Your task to perform on an android device: Go to calendar. Show me events next week Image 0: 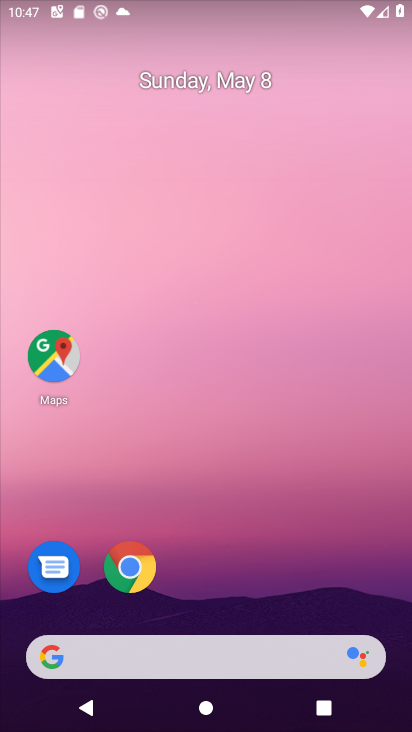
Step 0: drag from (258, 575) to (191, 108)
Your task to perform on an android device: Go to calendar. Show me events next week Image 1: 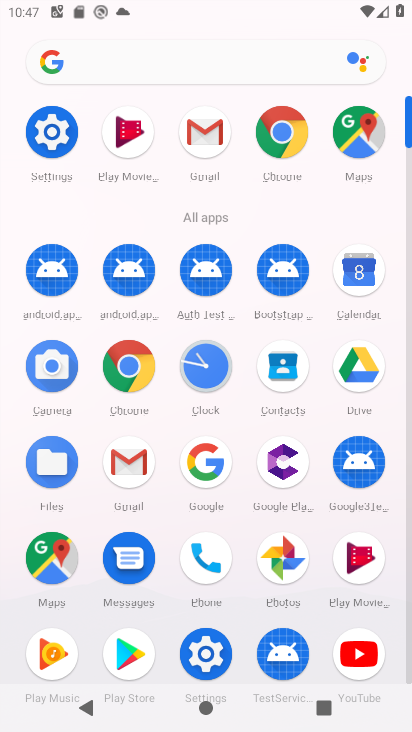
Step 1: click (352, 301)
Your task to perform on an android device: Go to calendar. Show me events next week Image 2: 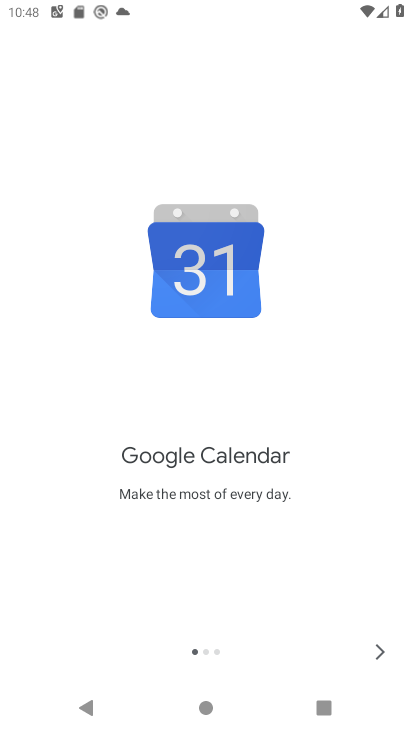
Step 2: click (383, 654)
Your task to perform on an android device: Go to calendar. Show me events next week Image 3: 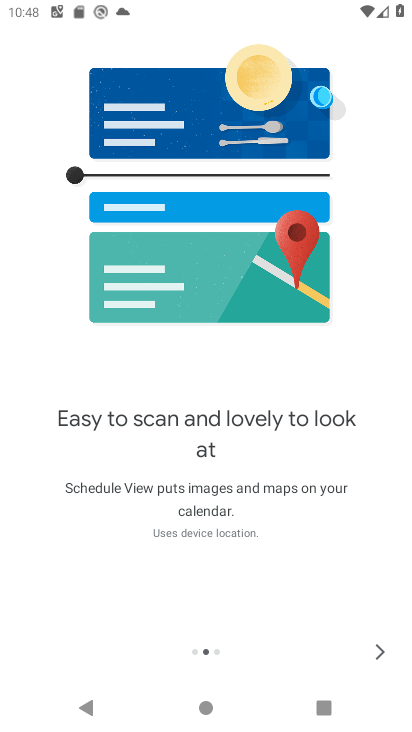
Step 3: click (388, 659)
Your task to perform on an android device: Go to calendar. Show me events next week Image 4: 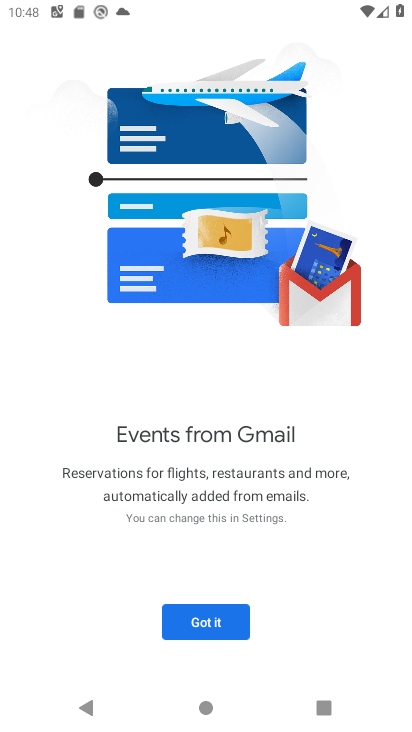
Step 4: click (232, 630)
Your task to perform on an android device: Go to calendar. Show me events next week Image 5: 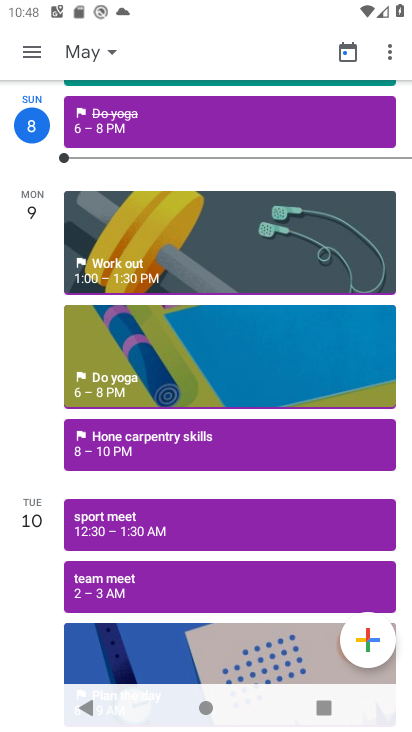
Step 5: click (39, 58)
Your task to perform on an android device: Go to calendar. Show me events next week Image 6: 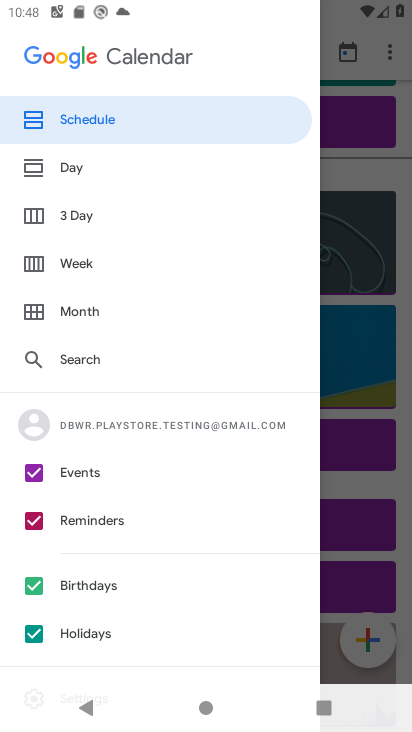
Step 6: click (87, 253)
Your task to perform on an android device: Go to calendar. Show me events next week Image 7: 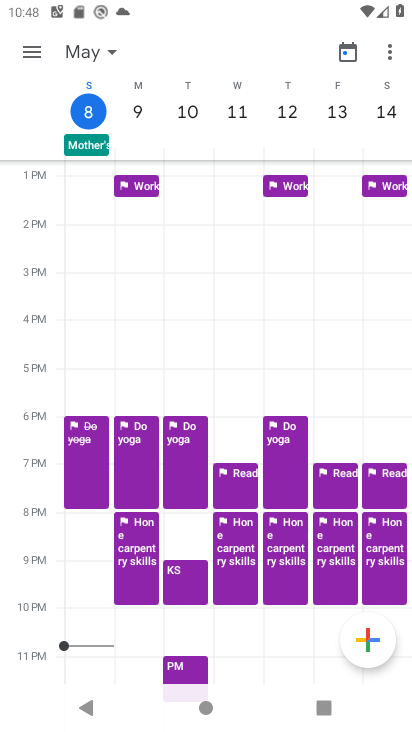
Step 7: click (93, 55)
Your task to perform on an android device: Go to calendar. Show me events next week Image 8: 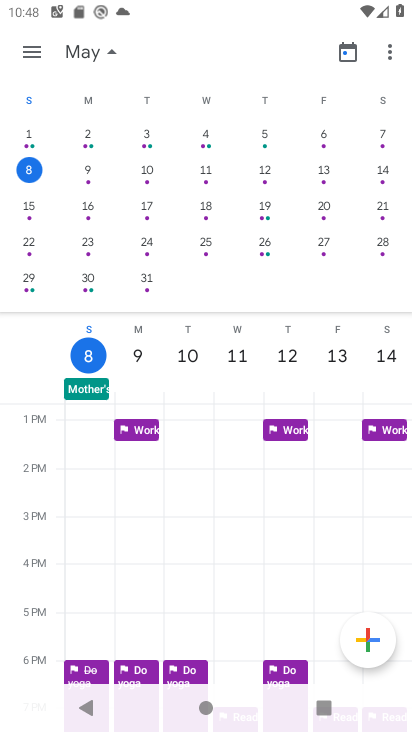
Step 8: click (26, 216)
Your task to perform on an android device: Go to calendar. Show me events next week Image 9: 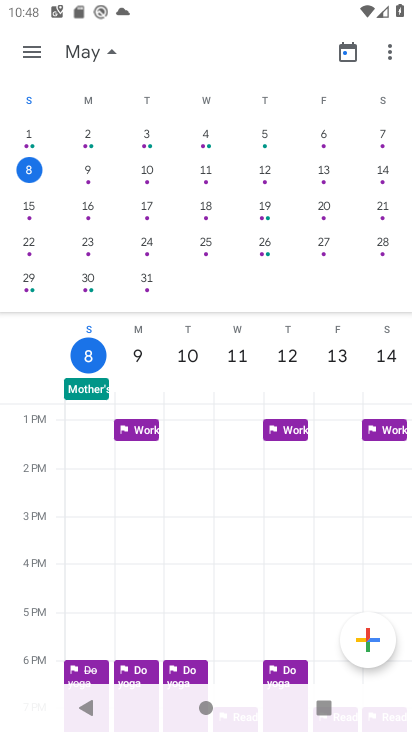
Step 9: click (27, 211)
Your task to perform on an android device: Go to calendar. Show me events next week Image 10: 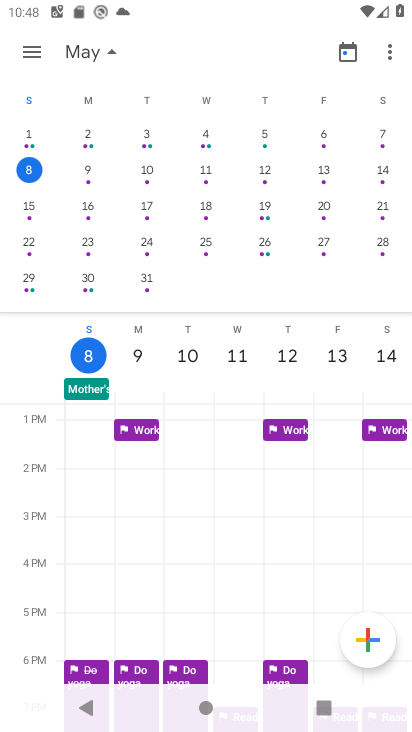
Step 10: click (27, 211)
Your task to perform on an android device: Go to calendar. Show me events next week Image 11: 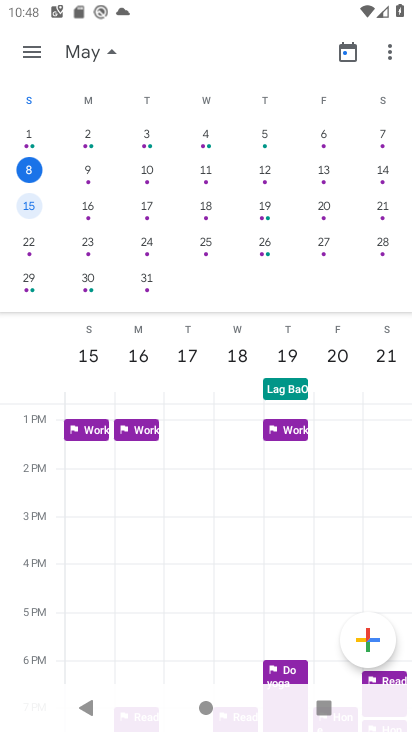
Step 11: task complete